Your task to perform on an android device: turn on the 24-hour format for clock Image 0: 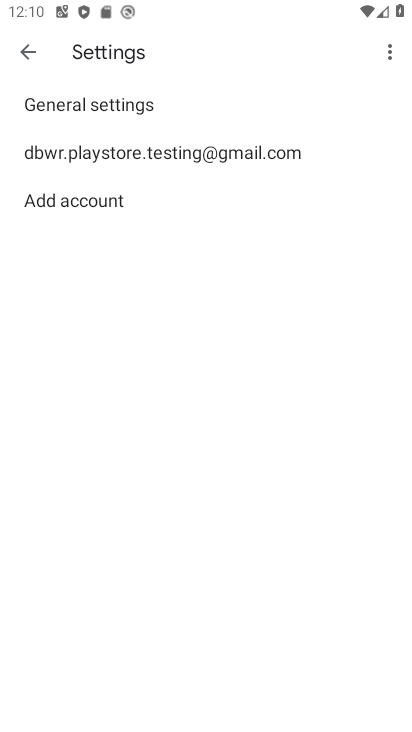
Step 0: press home button
Your task to perform on an android device: turn on the 24-hour format for clock Image 1: 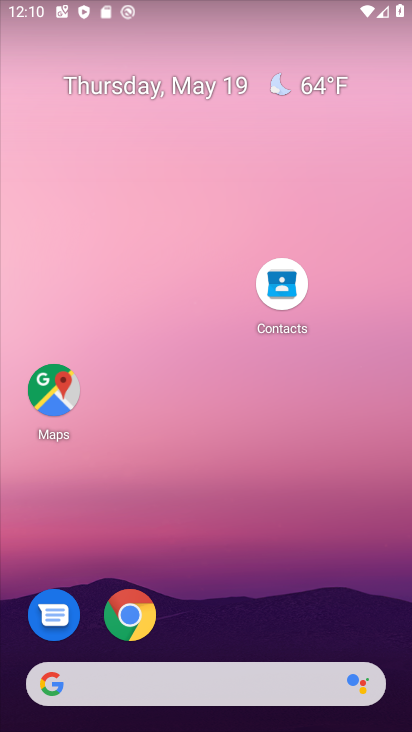
Step 1: drag from (311, 635) to (328, 349)
Your task to perform on an android device: turn on the 24-hour format for clock Image 2: 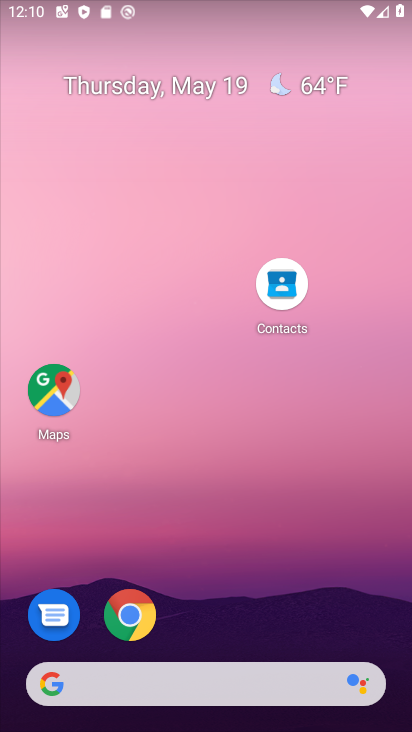
Step 2: drag from (228, 555) to (279, 199)
Your task to perform on an android device: turn on the 24-hour format for clock Image 3: 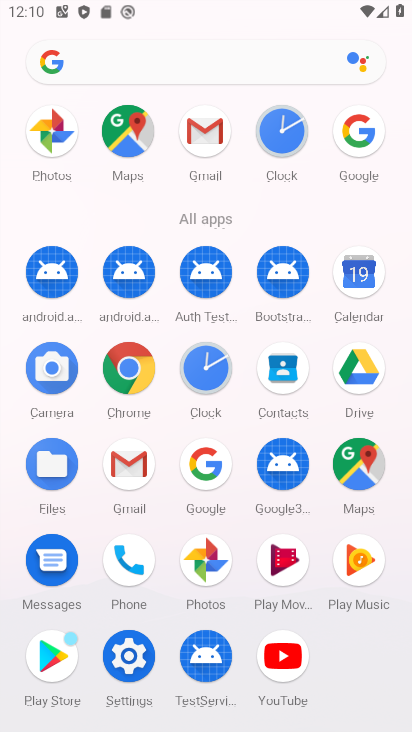
Step 3: click (215, 371)
Your task to perform on an android device: turn on the 24-hour format for clock Image 4: 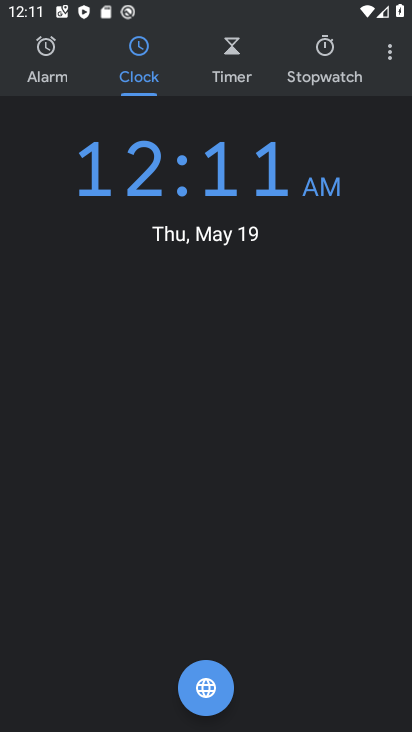
Step 4: click (388, 61)
Your task to perform on an android device: turn on the 24-hour format for clock Image 5: 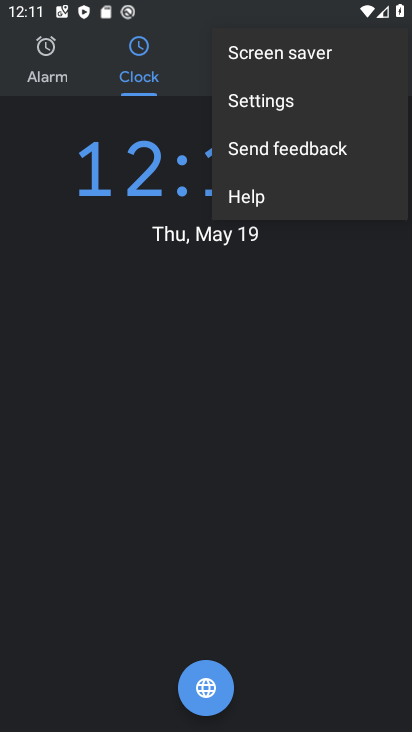
Step 5: click (305, 112)
Your task to perform on an android device: turn on the 24-hour format for clock Image 6: 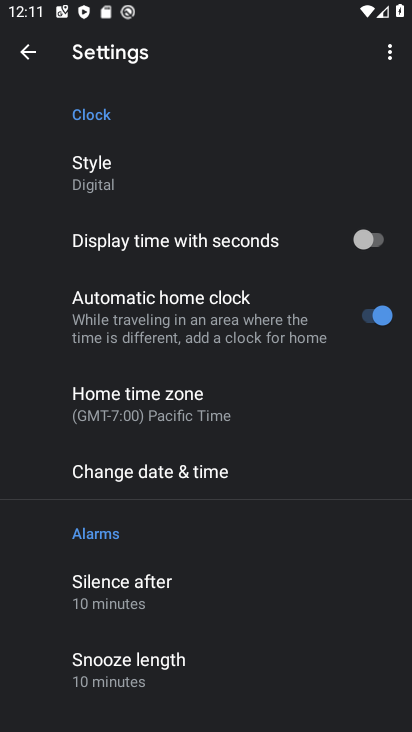
Step 6: click (156, 476)
Your task to perform on an android device: turn on the 24-hour format for clock Image 7: 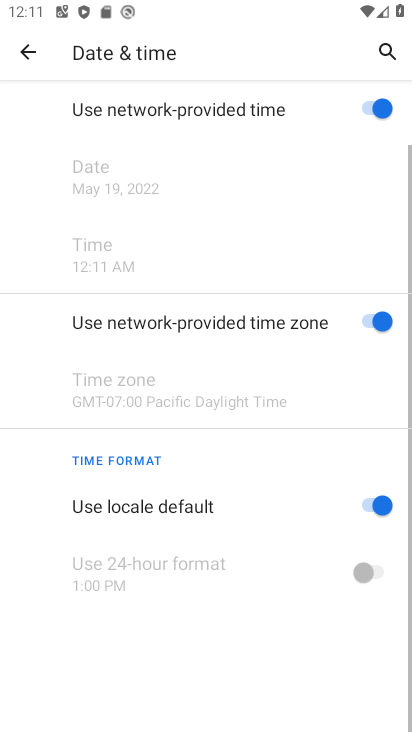
Step 7: task complete